Your task to perform on an android device: Open settings Image 0: 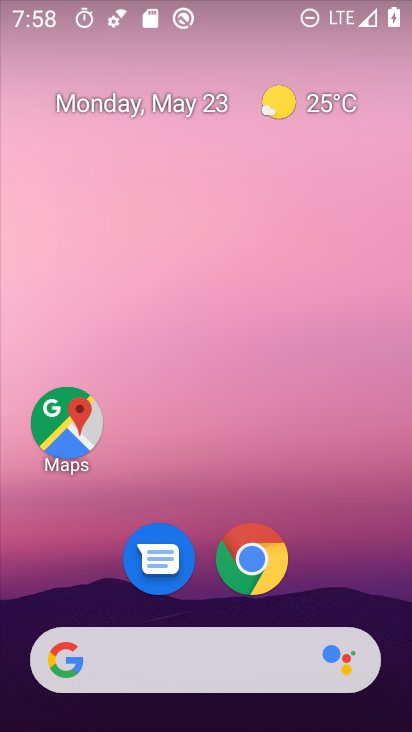
Step 0: drag from (382, 624) to (339, 62)
Your task to perform on an android device: Open settings Image 1: 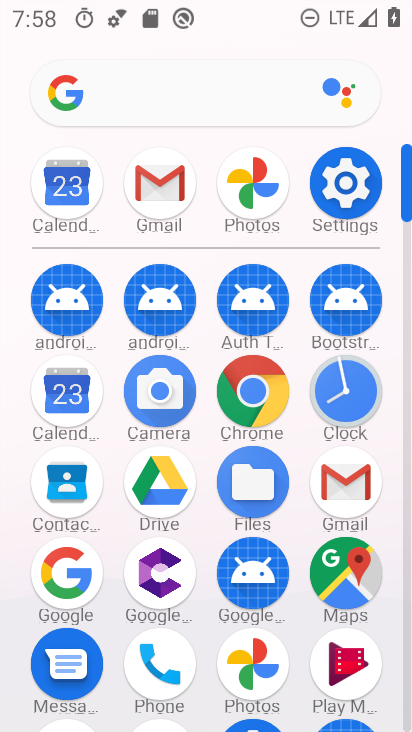
Step 1: click (362, 194)
Your task to perform on an android device: Open settings Image 2: 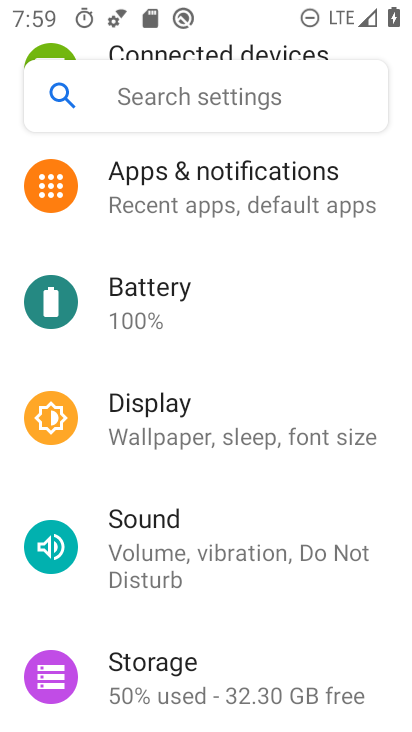
Step 2: task complete